Your task to perform on an android device: Go to Wikipedia Image 0: 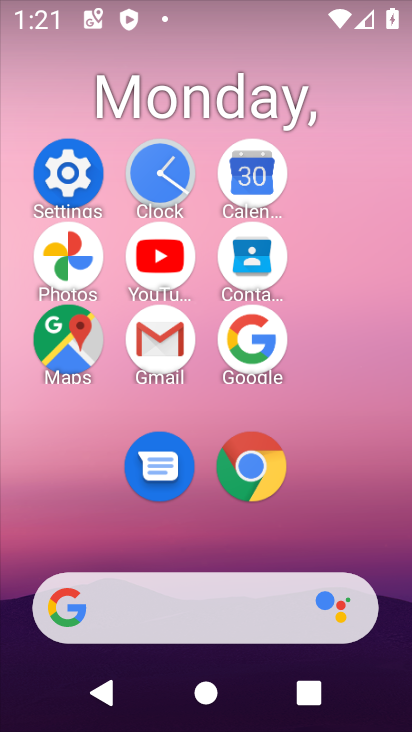
Step 0: click (232, 471)
Your task to perform on an android device: Go to Wikipedia Image 1: 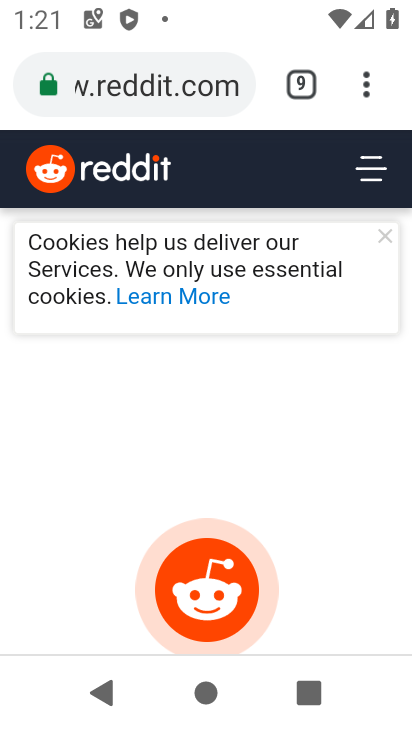
Step 1: click (310, 79)
Your task to perform on an android device: Go to Wikipedia Image 2: 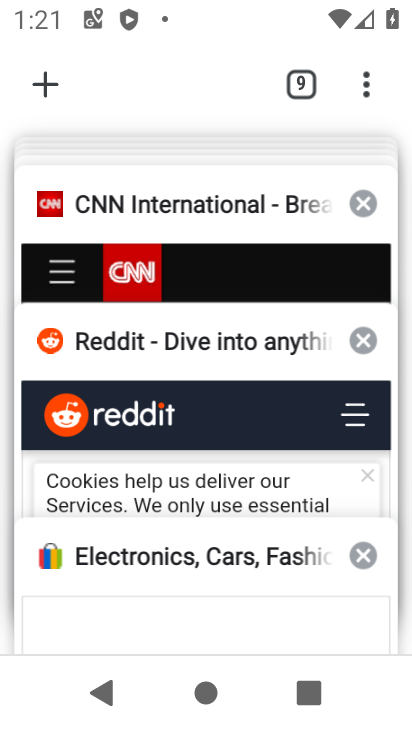
Step 2: click (77, 77)
Your task to perform on an android device: Go to Wikipedia Image 3: 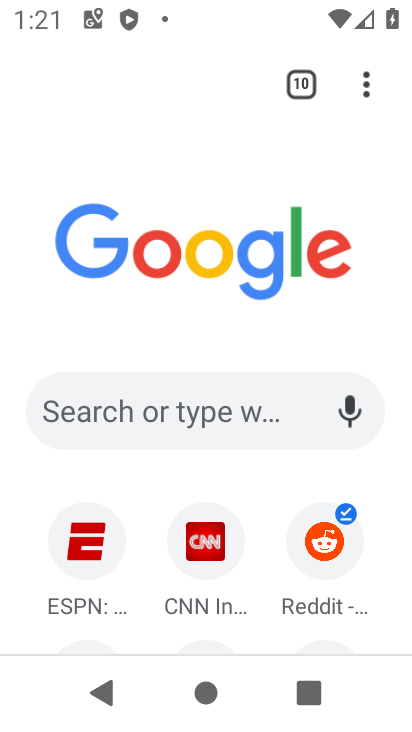
Step 3: drag from (271, 480) to (185, 114)
Your task to perform on an android device: Go to Wikipedia Image 4: 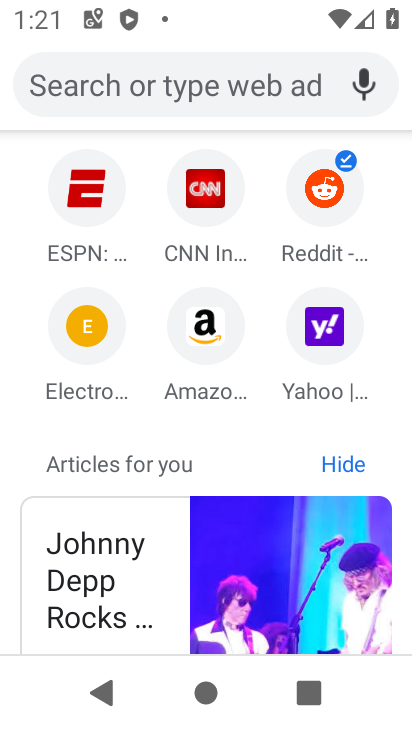
Step 4: click (106, 75)
Your task to perform on an android device: Go to Wikipedia Image 5: 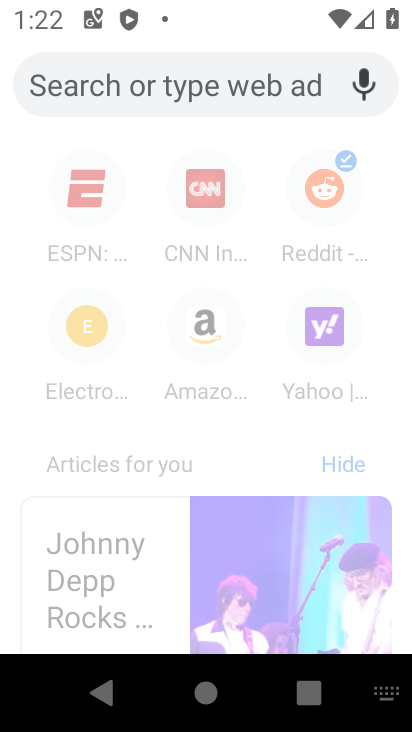
Step 5: type "wikipedia"
Your task to perform on an android device: Go to Wikipedia Image 6: 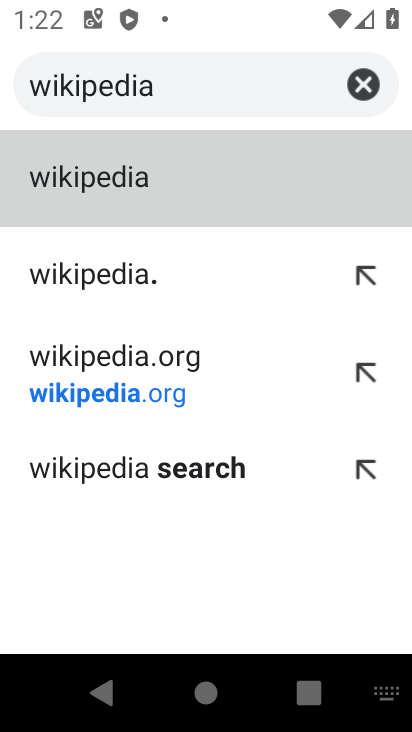
Step 6: click (123, 355)
Your task to perform on an android device: Go to Wikipedia Image 7: 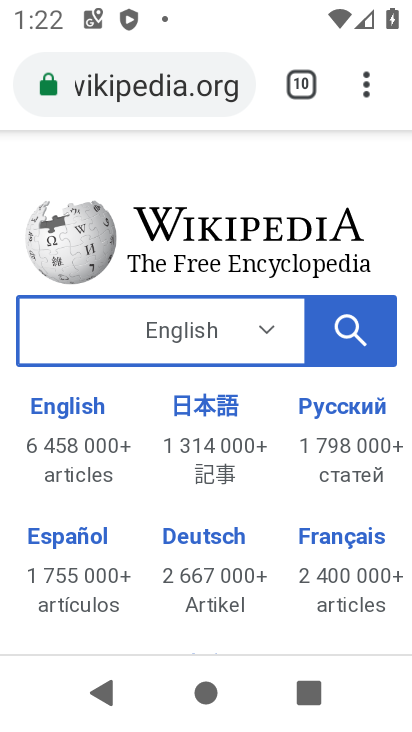
Step 7: task complete